Your task to perform on an android device: turn on the 24-hour format for clock Image 0: 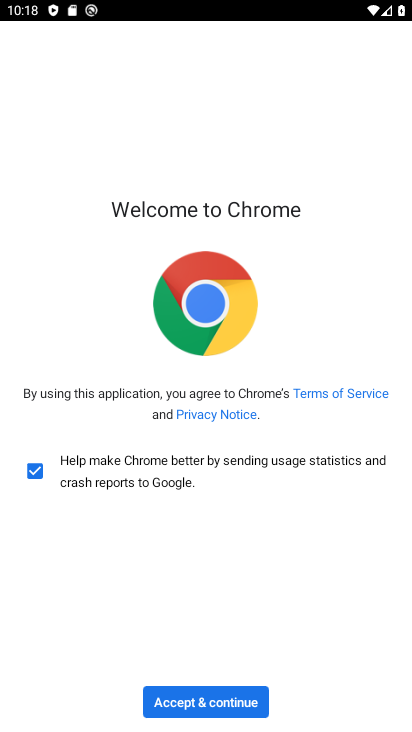
Step 0: click (198, 695)
Your task to perform on an android device: turn on the 24-hour format for clock Image 1: 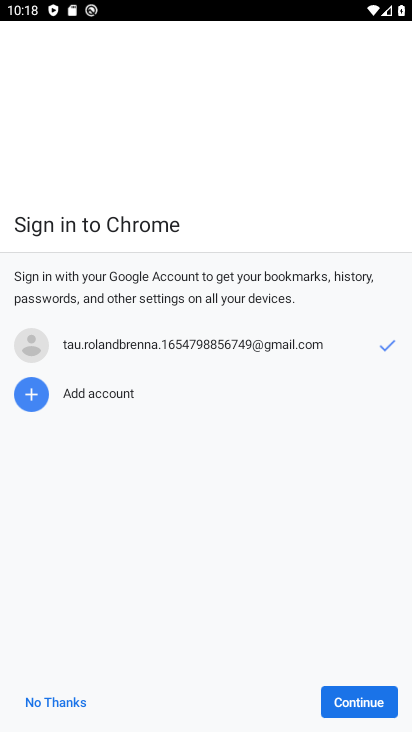
Step 1: press home button
Your task to perform on an android device: turn on the 24-hour format for clock Image 2: 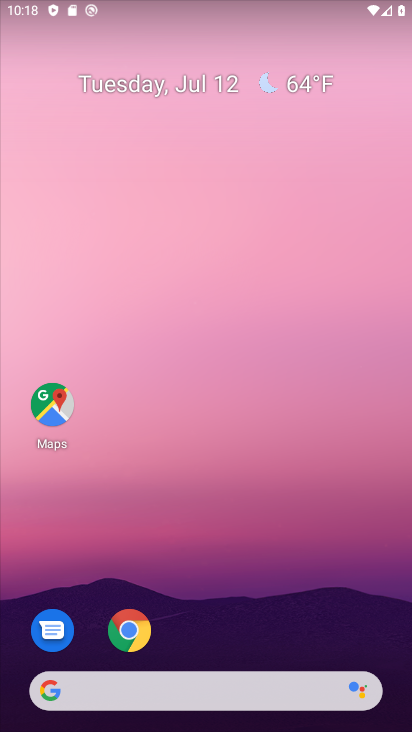
Step 2: drag from (227, 658) to (227, 92)
Your task to perform on an android device: turn on the 24-hour format for clock Image 3: 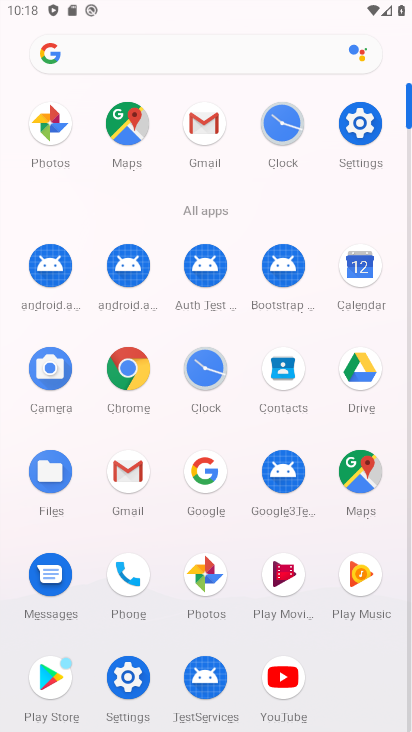
Step 3: click (196, 374)
Your task to perform on an android device: turn on the 24-hour format for clock Image 4: 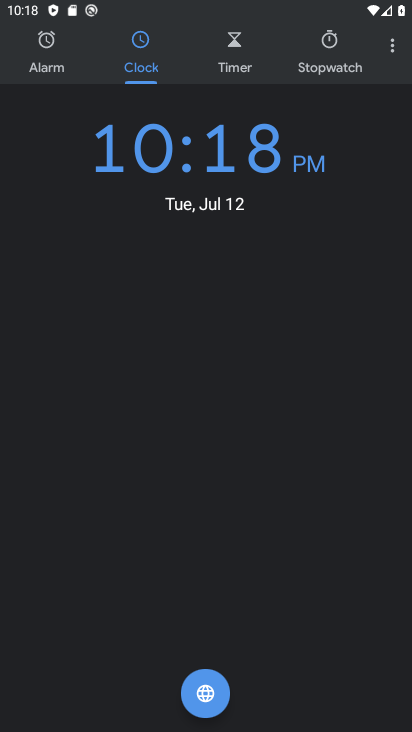
Step 4: click (384, 44)
Your task to perform on an android device: turn on the 24-hour format for clock Image 5: 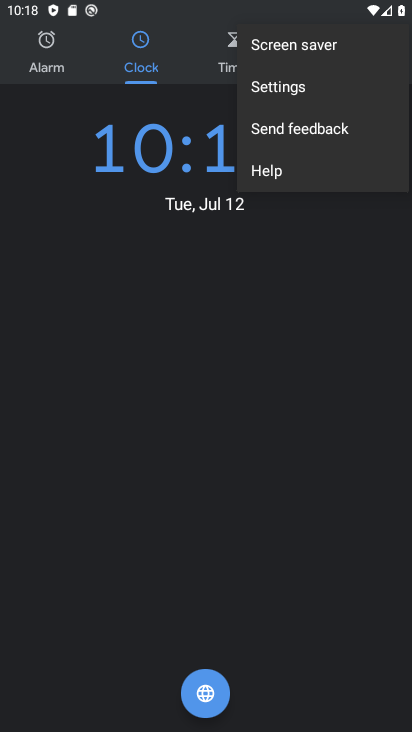
Step 5: click (257, 89)
Your task to perform on an android device: turn on the 24-hour format for clock Image 6: 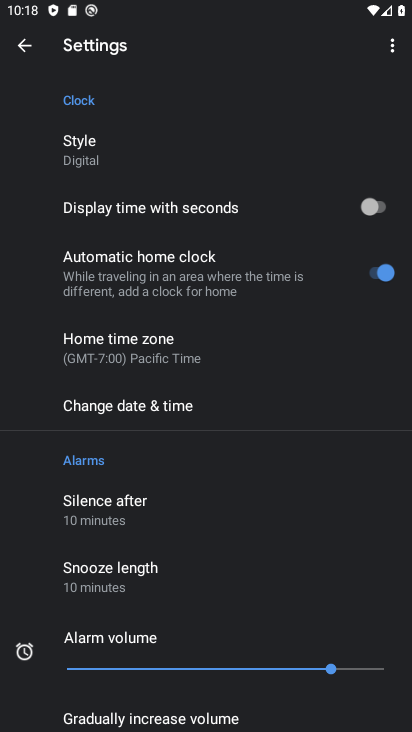
Step 6: click (134, 408)
Your task to perform on an android device: turn on the 24-hour format for clock Image 7: 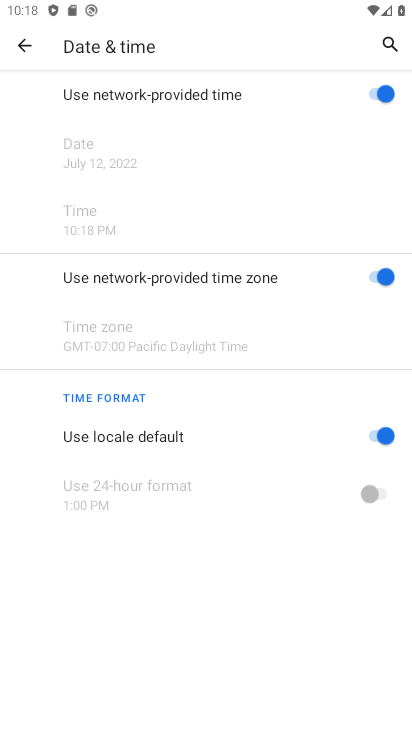
Step 7: click (372, 436)
Your task to perform on an android device: turn on the 24-hour format for clock Image 8: 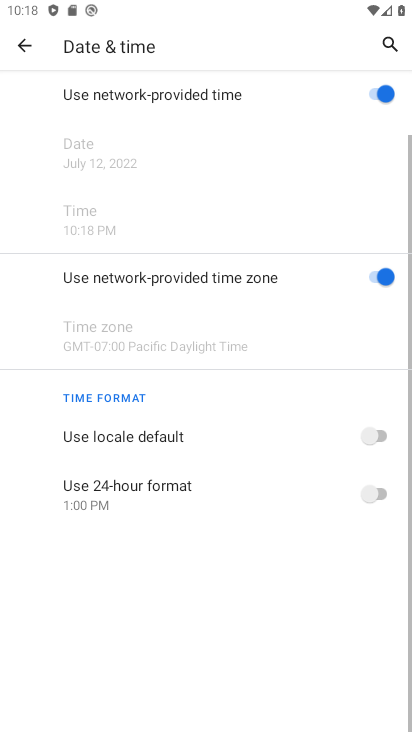
Step 8: click (375, 495)
Your task to perform on an android device: turn on the 24-hour format for clock Image 9: 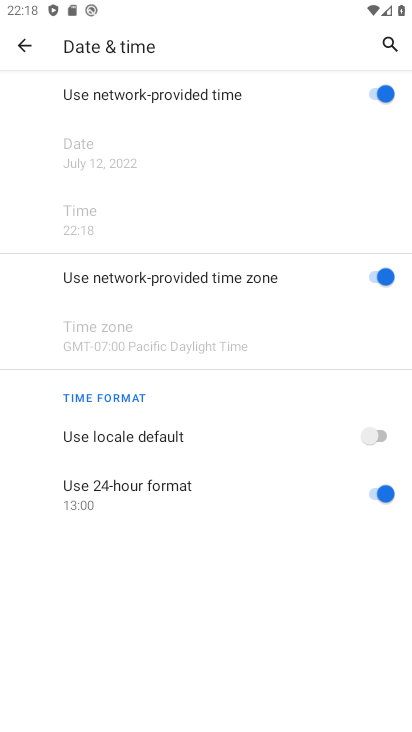
Step 9: task complete